Your task to perform on an android device: Is it going to rain today? Image 0: 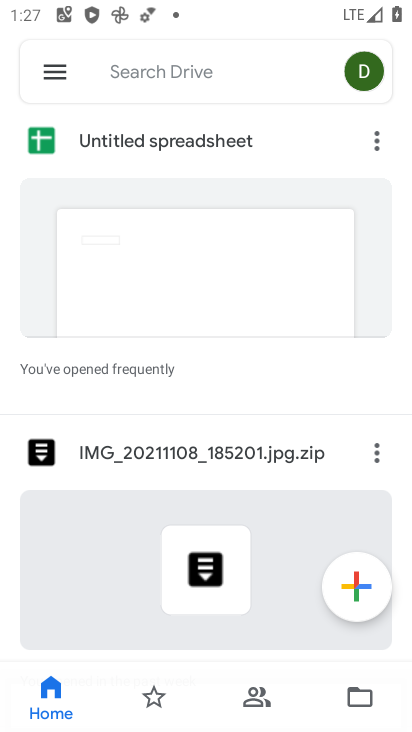
Step 0: press home button
Your task to perform on an android device: Is it going to rain today? Image 1: 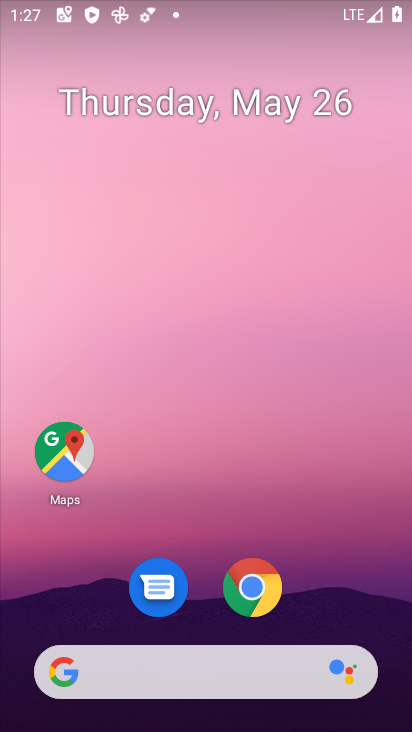
Step 1: click (188, 680)
Your task to perform on an android device: Is it going to rain today? Image 2: 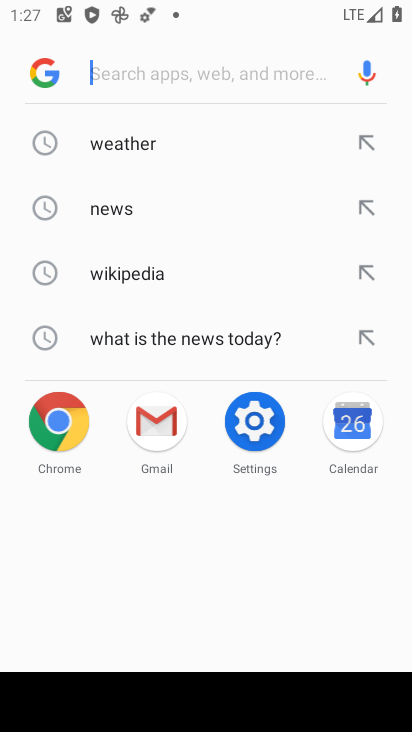
Step 2: click (160, 147)
Your task to perform on an android device: Is it going to rain today? Image 3: 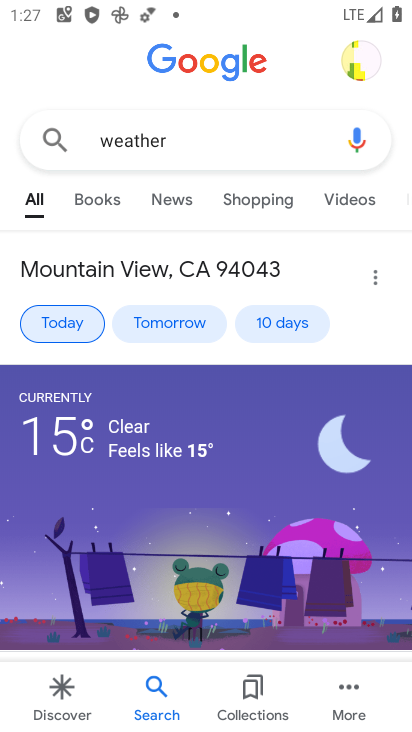
Step 3: click (61, 325)
Your task to perform on an android device: Is it going to rain today? Image 4: 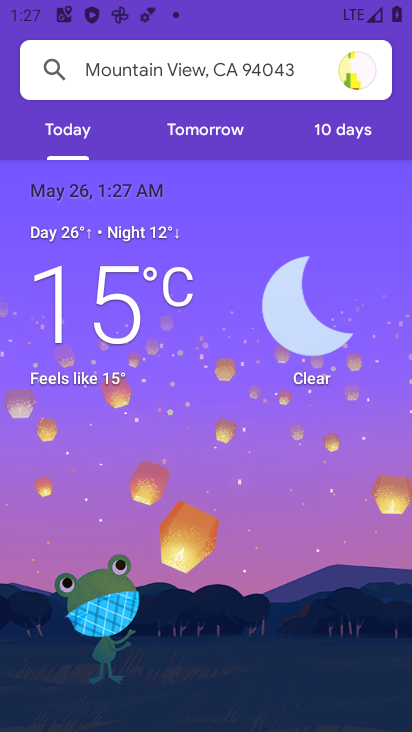
Step 4: task complete